Your task to perform on an android device: show emergency info Image 0: 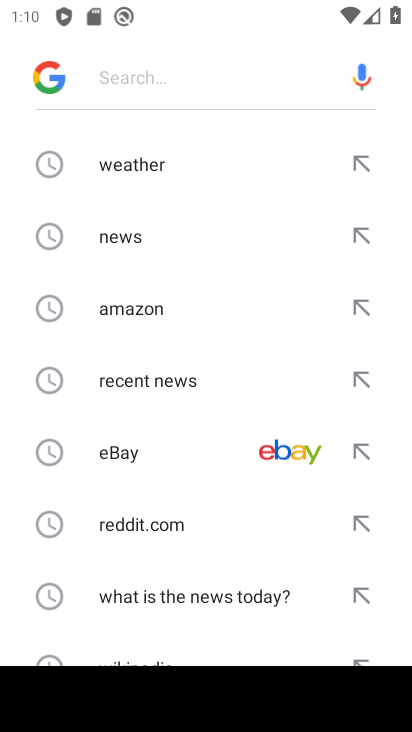
Step 0: press back button
Your task to perform on an android device: show emergency info Image 1: 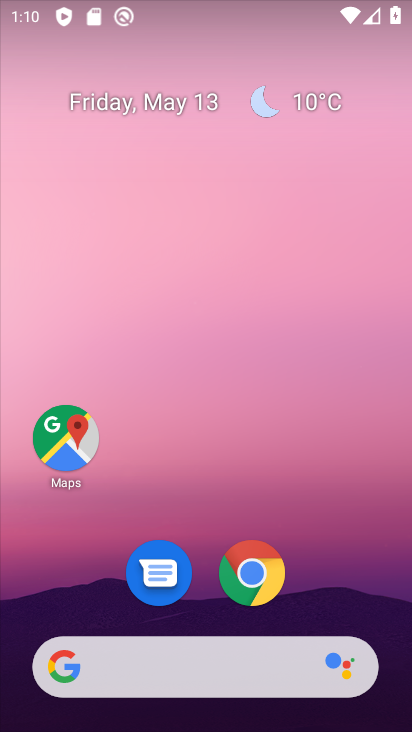
Step 1: drag from (347, 528) to (304, 5)
Your task to perform on an android device: show emergency info Image 2: 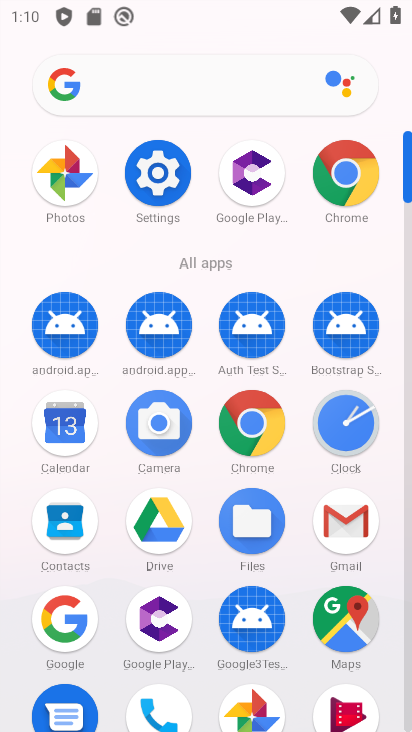
Step 2: click (154, 173)
Your task to perform on an android device: show emergency info Image 3: 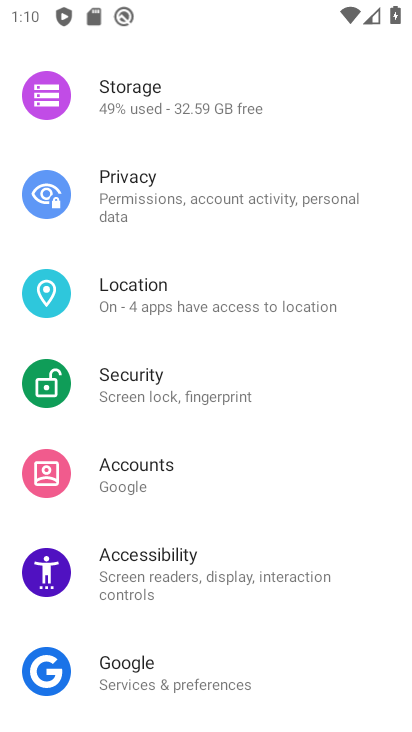
Step 3: drag from (189, 499) to (222, 86)
Your task to perform on an android device: show emergency info Image 4: 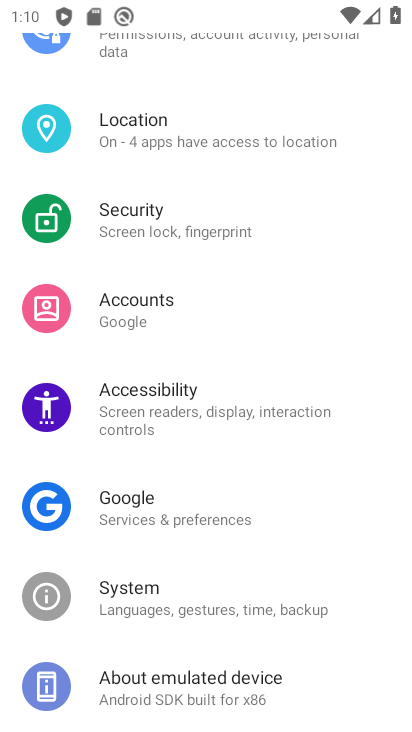
Step 4: drag from (218, 521) to (248, 49)
Your task to perform on an android device: show emergency info Image 5: 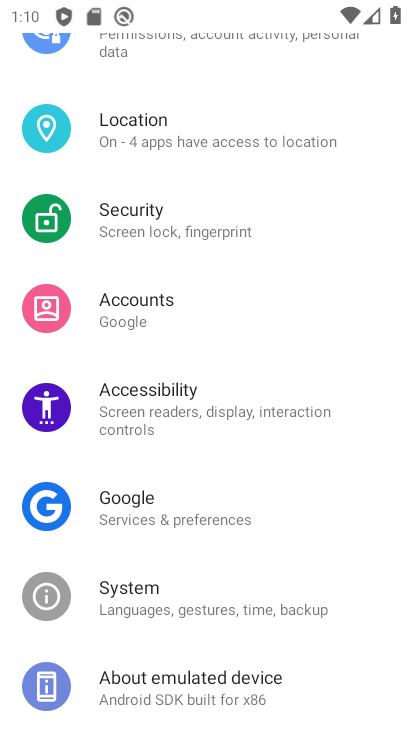
Step 5: drag from (239, 566) to (274, 138)
Your task to perform on an android device: show emergency info Image 6: 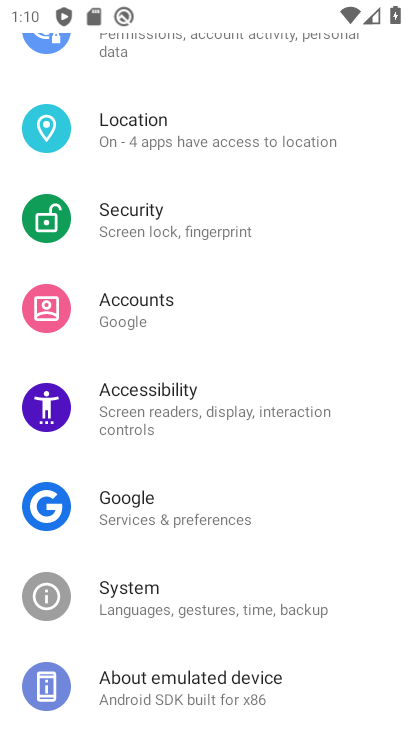
Step 6: click (140, 693)
Your task to perform on an android device: show emergency info Image 7: 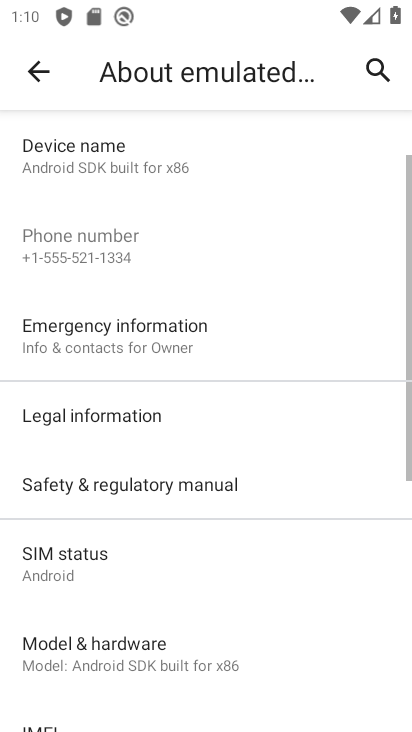
Step 7: task complete